Your task to perform on an android device: Show me the alarms in the clock app Image 0: 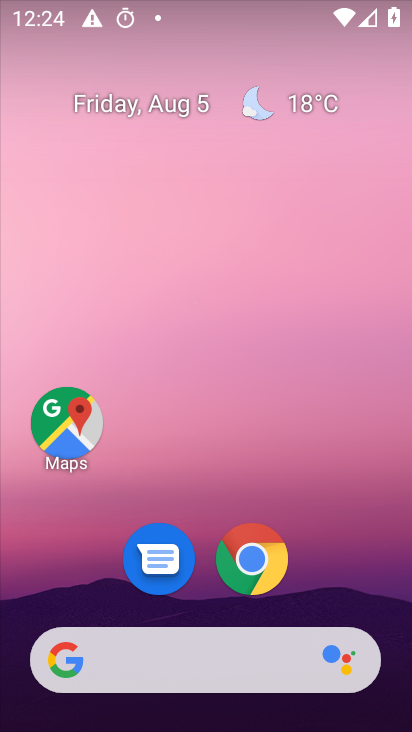
Step 0: task complete